Your task to perform on an android device: open chrome privacy settings Image 0: 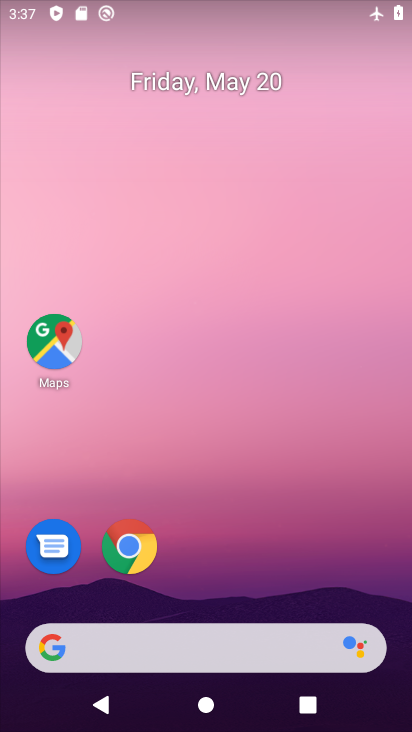
Step 0: click (121, 546)
Your task to perform on an android device: open chrome privacy settings Image 1: 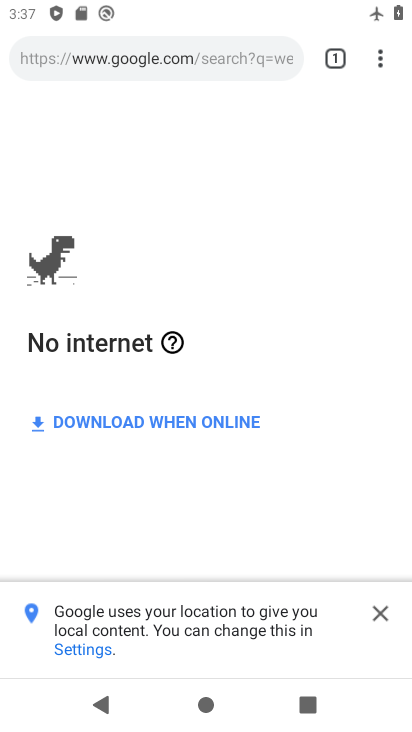
Step 1: drag from (381, 54) to (187, 565)
Your task to perform on an android device: open chrome privacy settings Image 2: 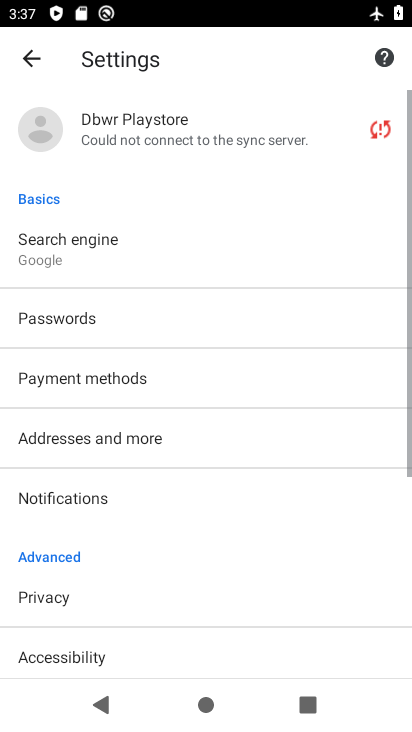
Step 2: drag from (188, 563) to (243, 196)
Your task to perform on an android device: open chrome privacy settings Image 3: 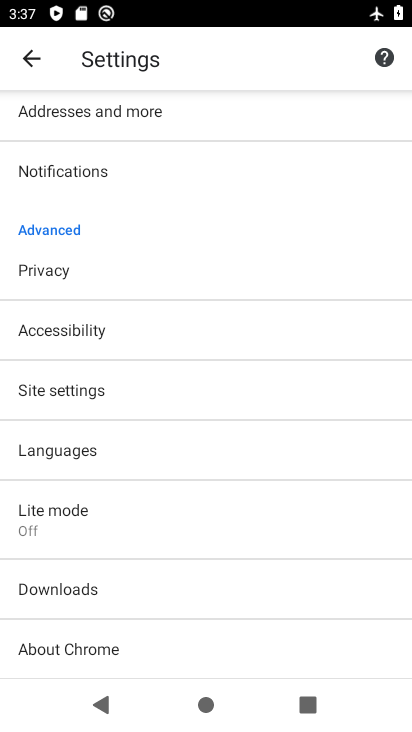
Step 3: click (53, 255)
Your task to perform on an android device: open chrome privacy settings Image 4: 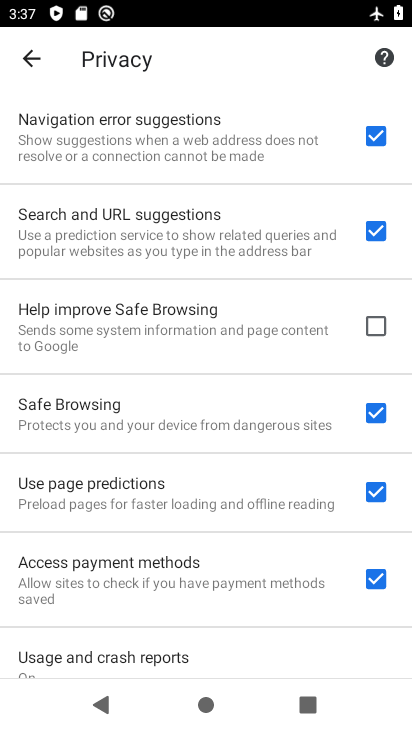
Step 4: task complete